Your task to perform on an android device: Open privacy settings Image 0: 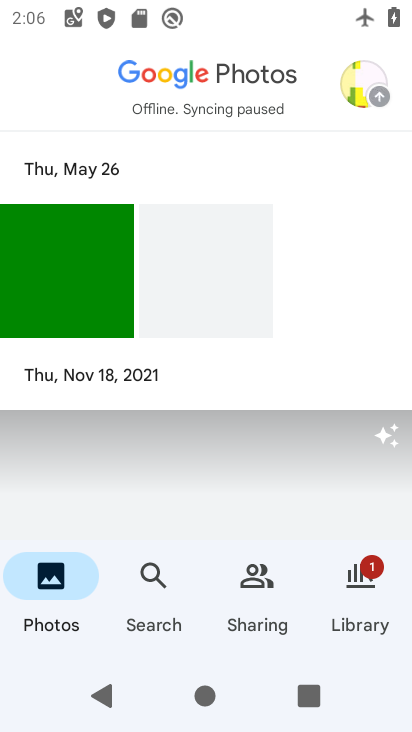
Step 0: press home button
Your task to perform on an android device: Open privacy settings Image 1: 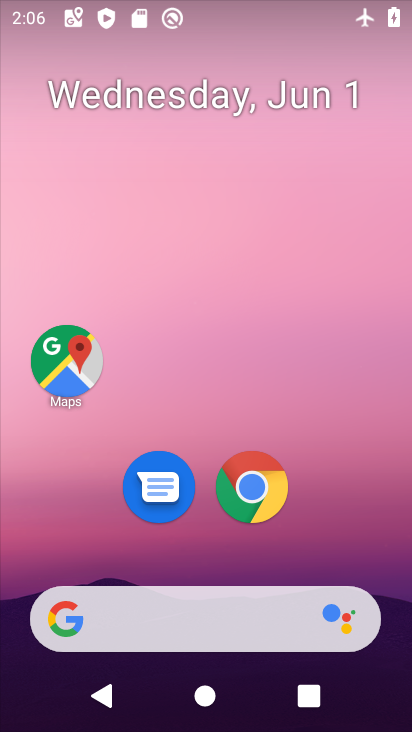
Step 1: drag from (341, 547) to (346, 175)
Your task to perform on an android device: Open privacy settings Image 2: 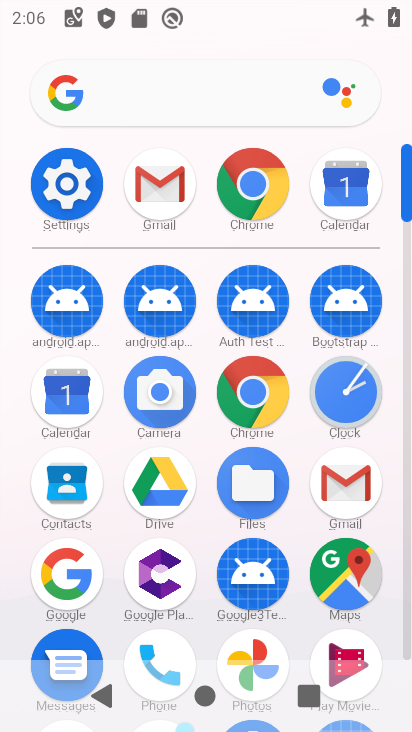
Step 2: click (56, 213)
Your task to perform on an android device: Open privacy settings Image 3: 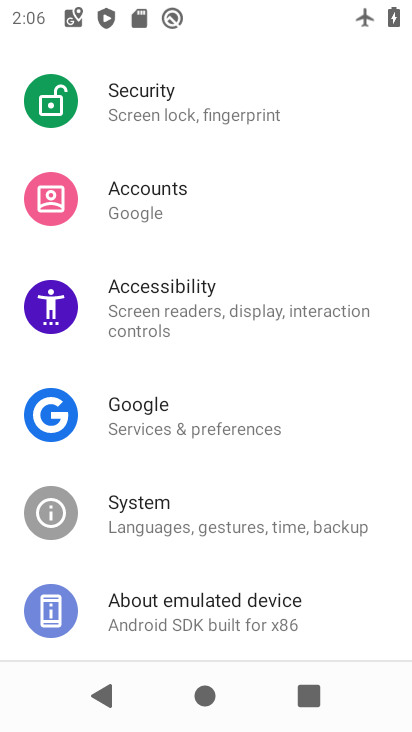
Step 3: drag from (310, 210) to (310, 305)
Your task to perform on an android device: Open privacy settings Image 4: 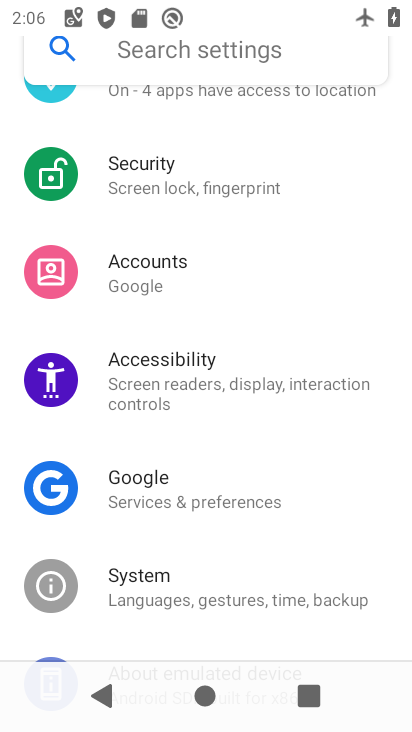
Step 4: drag from (314, 200) to (313, 317)
Your task to perform on an android device: Open privacy settings Image 5: 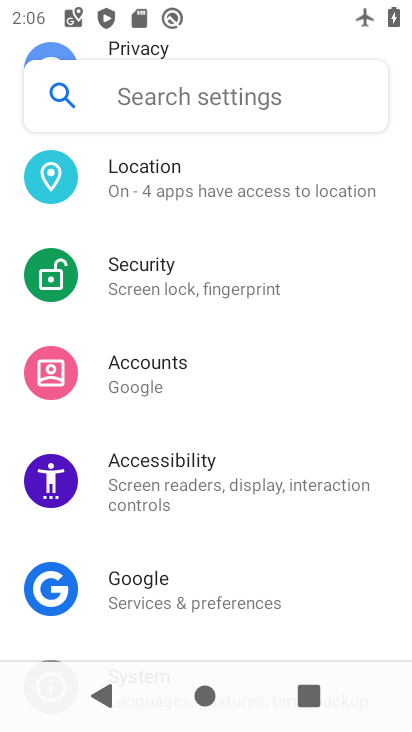
Step 5: drag from (340, 168) to (317, 308)
Your task to perform on an android device: Open privacy settings Image 6: 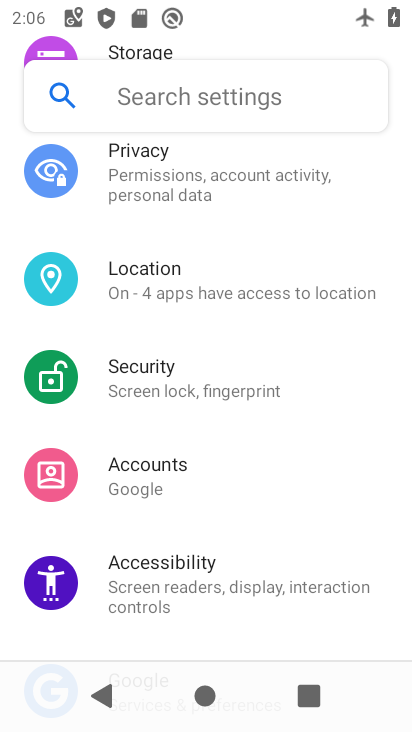
Step 6: drag from (328, 203) to (322, 322)
Your task to perform on an android device: Open privacy settings Image 7: 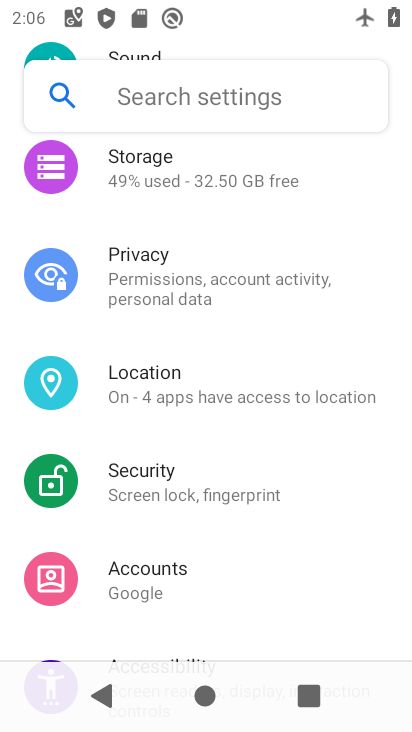
Step 7: drag from (330, 178) to (327, 326)
Your task to perform on an android device: Open privacy settings Image 8: 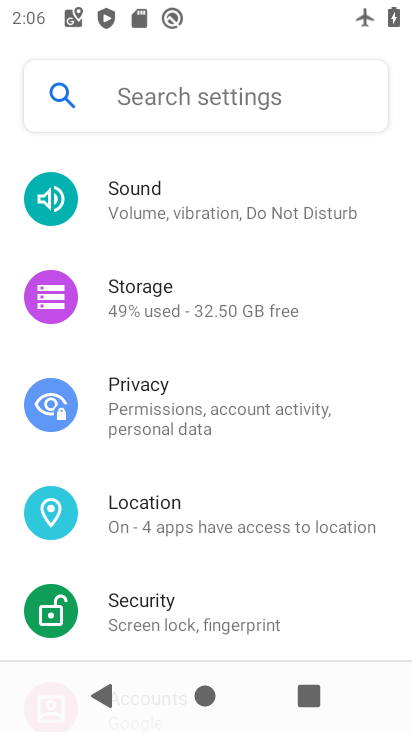
Step 8: drag from (331, 191) to (320, 297)
Your task to perform on an android device: Open privacy settings Image 9: 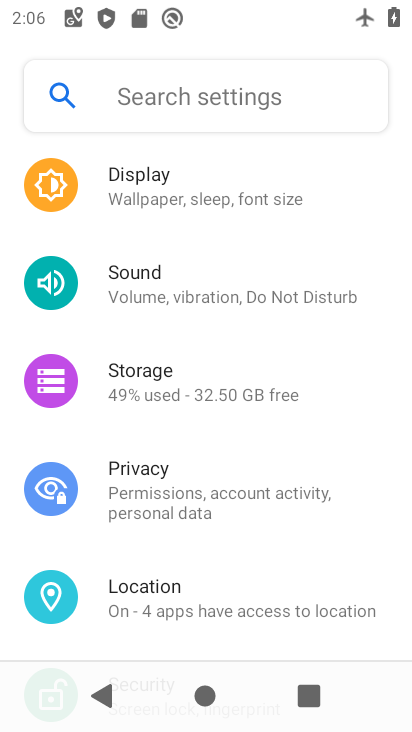
Step 9: click (253, 501)
Your task to perform on an android device: Open privacy settings Image 10: 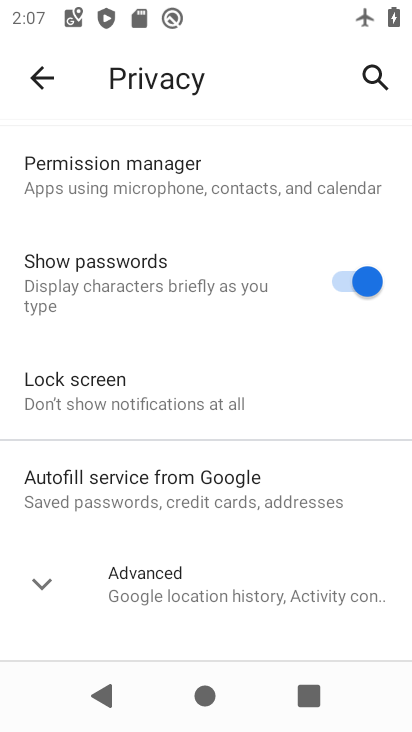
Step 10: task complete